Your task to perform on an android device: Set the phone to "Do not disturb". Image 0: 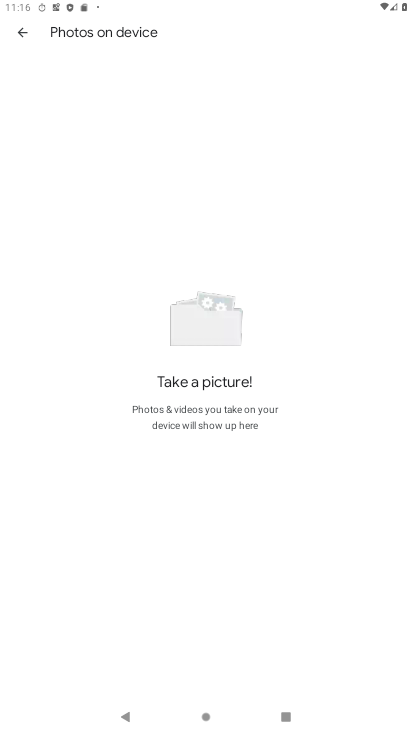
Step 0: press home button
Your task to perform on an android device: Set the phone to "Do not disturb". Image 1: 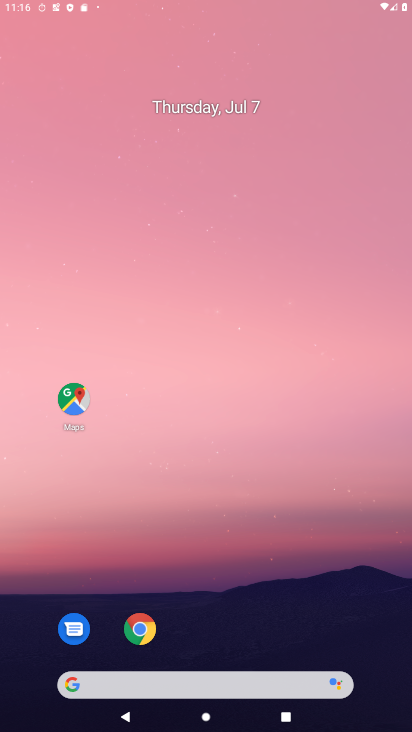
Step 1: drag from (248, 607) to (245, 3)
Your task to perform on an android device: Set the phone to "Do not disturb". Image 2: 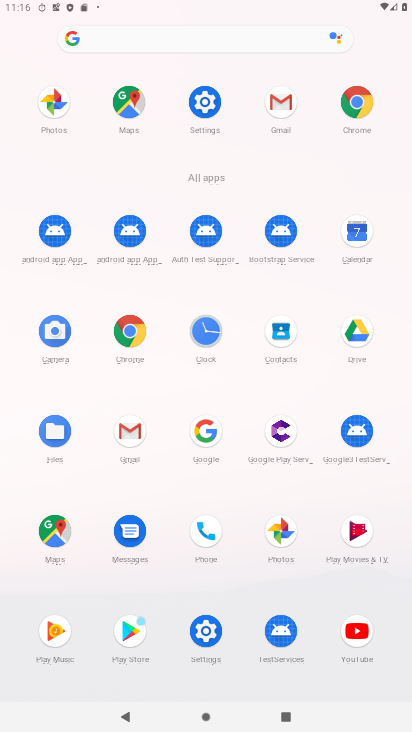
Step 2: drag from (314, 6) to (272, 545)
Your task to perform on an android device: Set the phone to "Do not disturb". Image 3: 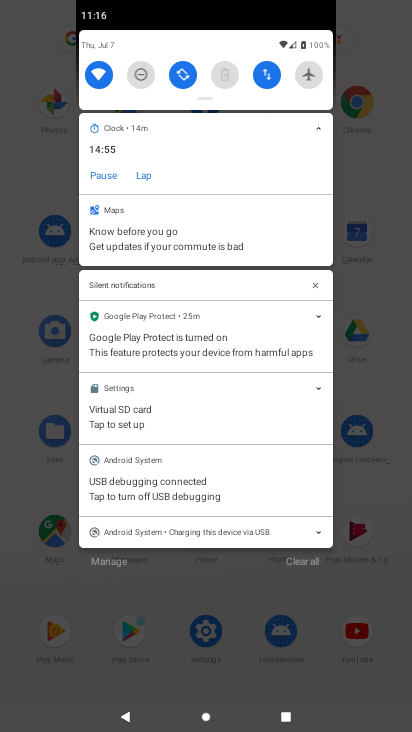
Step 3: click (140, 69)
Your task to perform on an android device: Set the phone to "Do not disturb". Image 4: 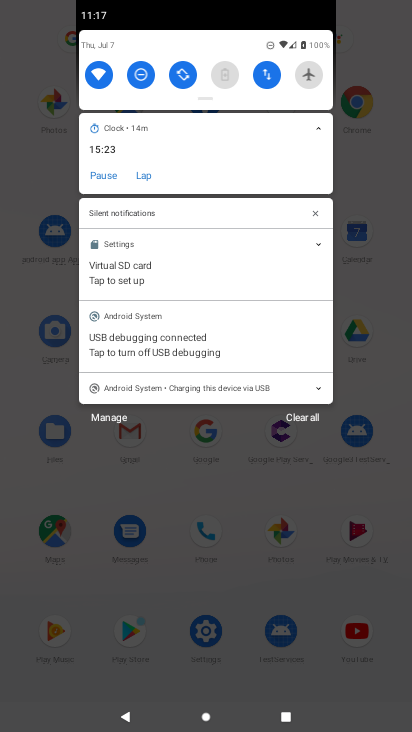
Step 4: task complete